Your task to perform on an android device: toggle notifications settings in the gmail app Image 0: 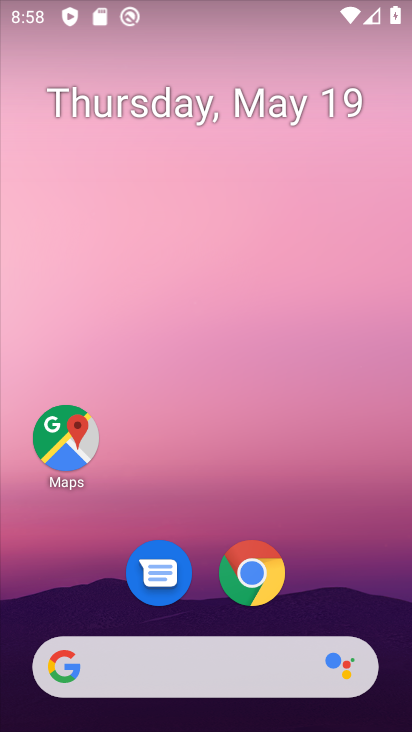
Step 0: drag from (198, 606) to (212, 165)
Your task to perform on an android device: toggle notifications settings in the gmail app Image 1: 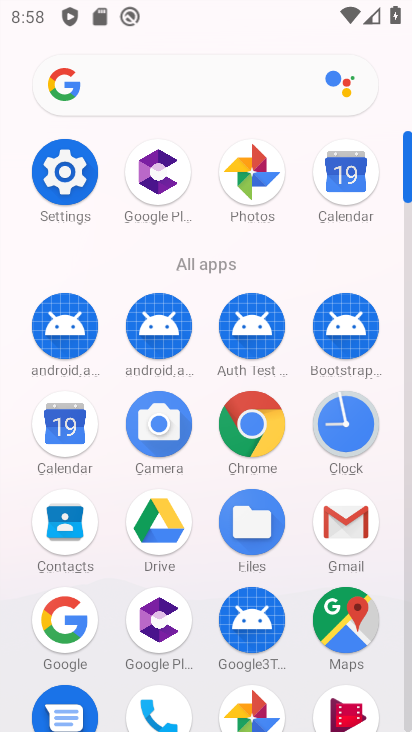
Step 1: click (338, 523)
Your task to perform on an android device: toggle notifications settings in the gmail app Image 2: 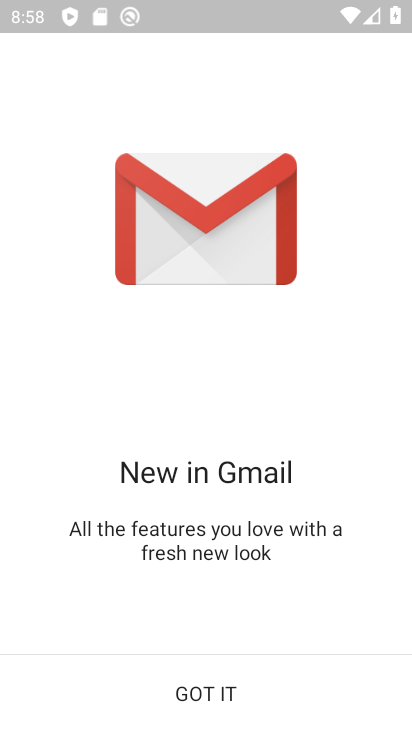
Step 2: click (292, 673)
Your task to perform on an android device: toggle notifications settings in the gmail app Image 3: 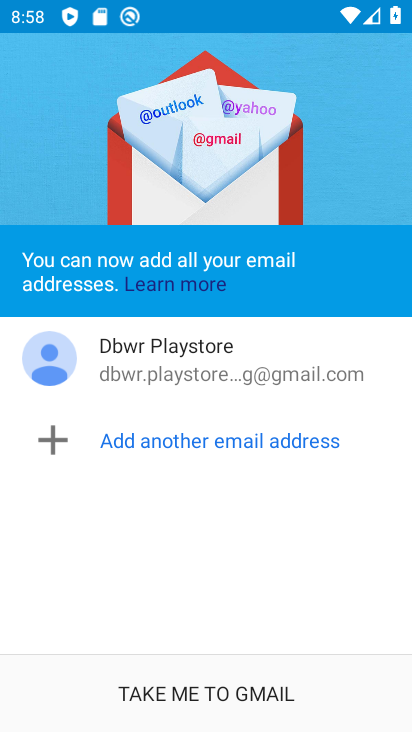
Step 3: click (279, 686)
Your task to perform on an android device: toggle notifications settings in the gmail app Image 4: 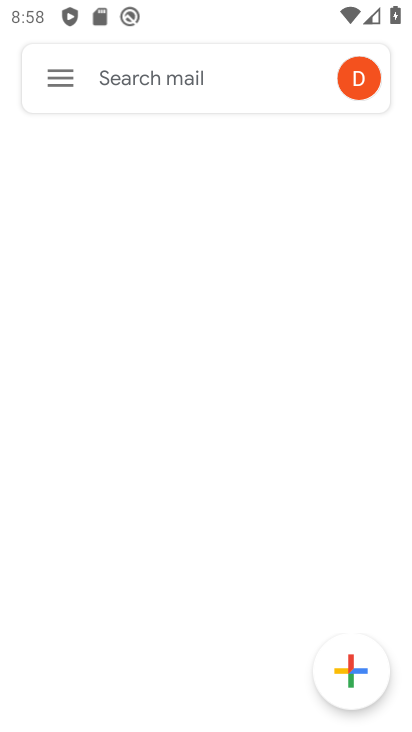
Step 4: click (53, 73)
Your task to perform on an android device: toggle notifications settings in the gmail app Image 5: 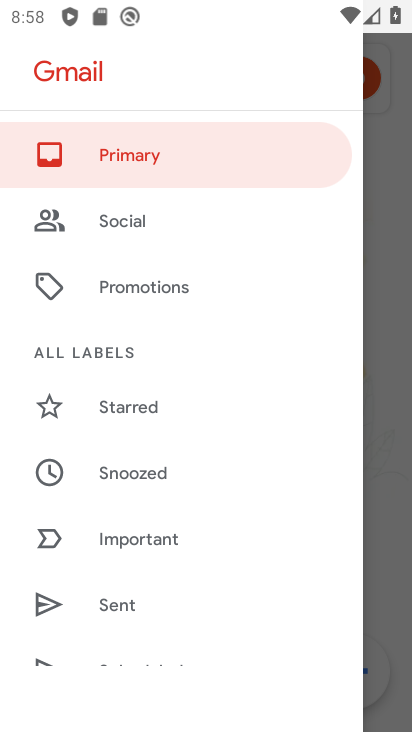
Step 5: drag from (161, 616) to (215, 297)
Your task to perform on an android device: toggle notifications settings in the gmail app Image 6: 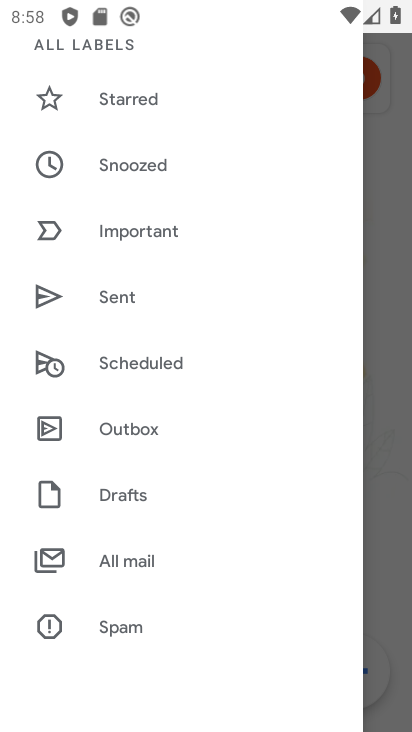
Step 6: drag from (188, 633) to (240, 314)
Your task to perform on an android device: toggle notifications settings in the gmail app Image 7: 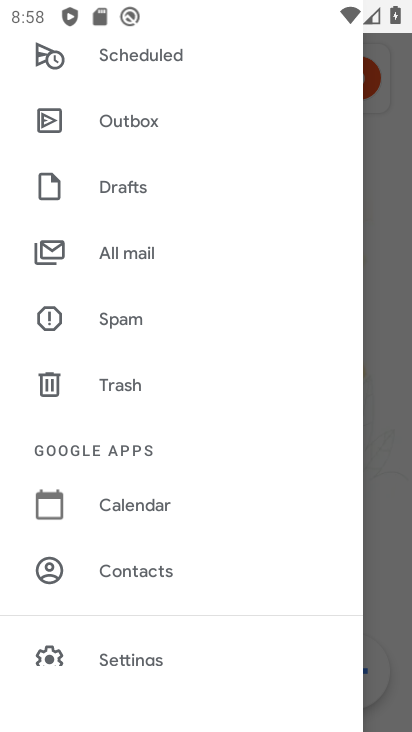
Step 7: click (167, 669)
Your task to perform on an android device: toggle notifications settings in the gmail app Image 8: 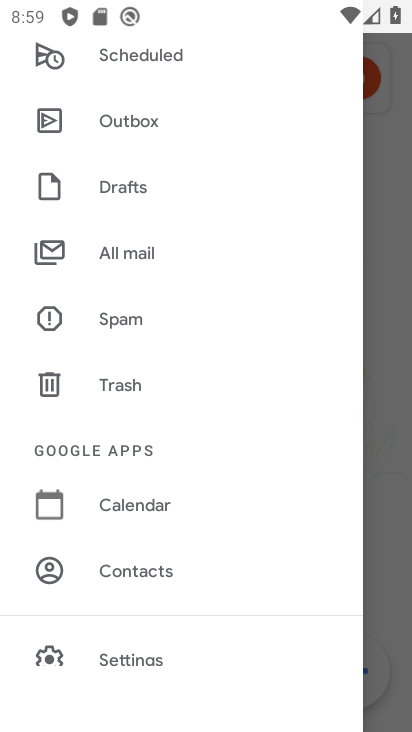
Step 8: click (162, 655)
Your task to perform on an android device: toggle notifications settings in the gmail app Image 9: 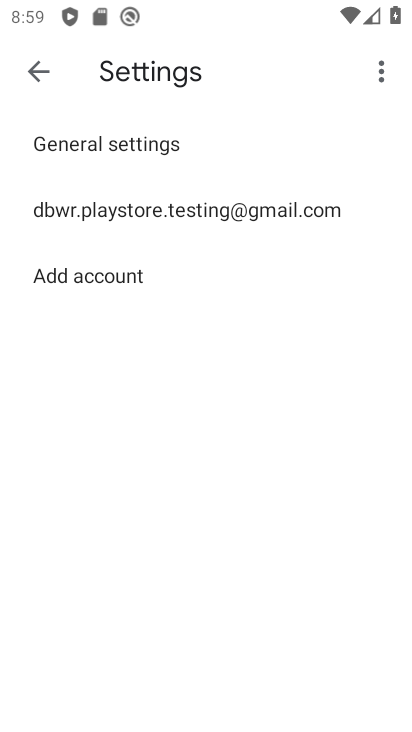
Step 9: click (107, 194)
Your task to perform on an android device: toggle notifications settings in the gmail app Image 10: 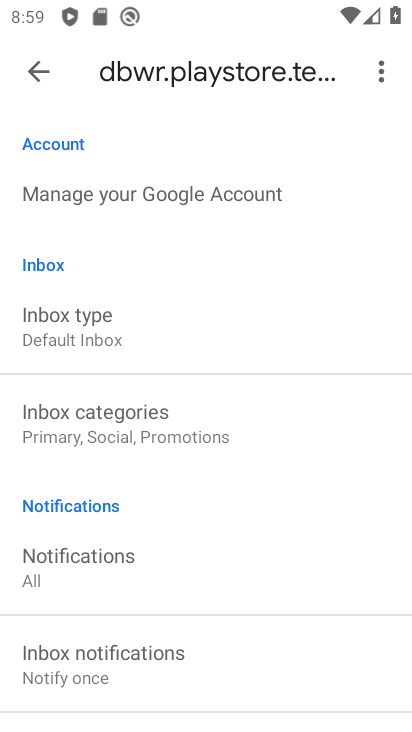
Step 10: drag from (155, 593) to (184, 446)
Your task to perform on an android device: toggle notifications settings in the gmail app Image 11: 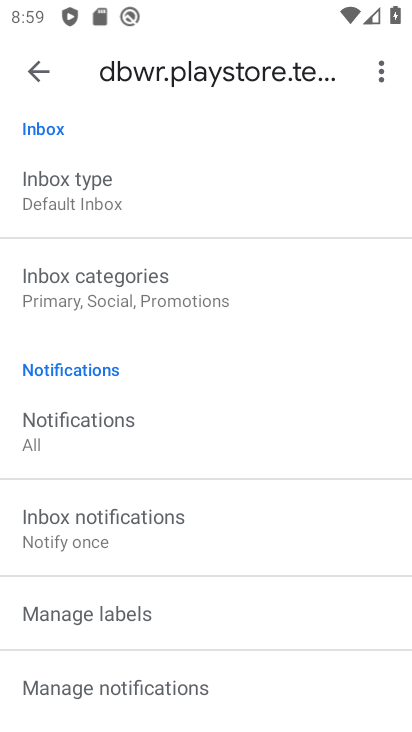
Step 11: click (184, 684)
Your task to perform on an android device: toggle notifications settings in the gmail app Image 12: 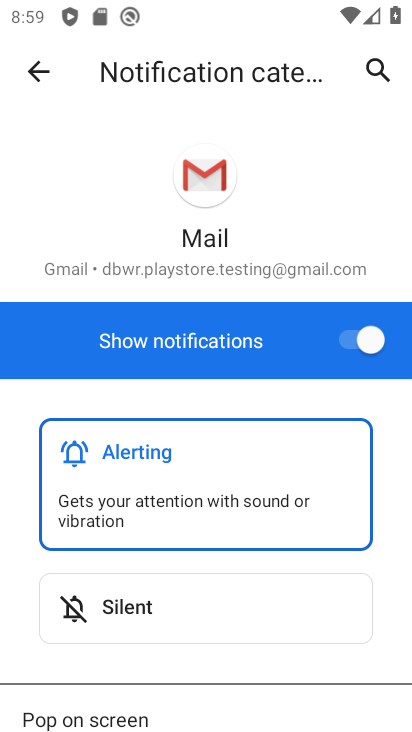
Step 12: click (355, 334)
Your task to perform on an android device: toggle notifications settings in the gmail app Image 13: 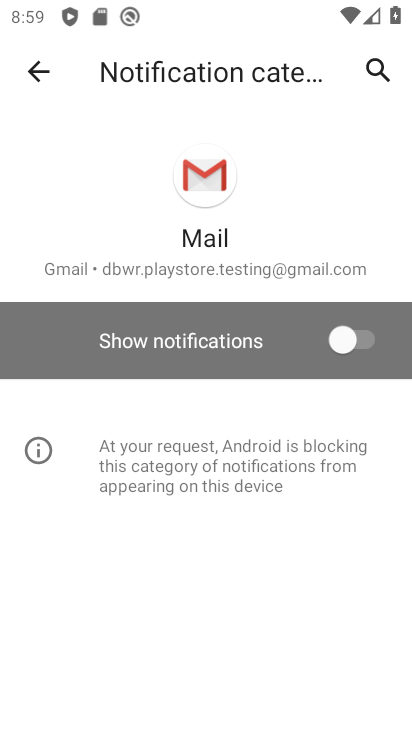
Step 13: task complete